Your task to perform on an android device: change the clock display to show seconds Image 0: 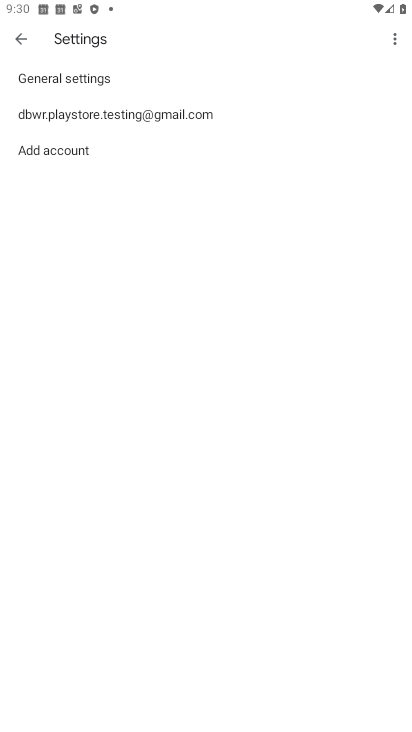
Step 0: press home button
Your task to perform on an android device: change the clock display to show seconds Image 1: 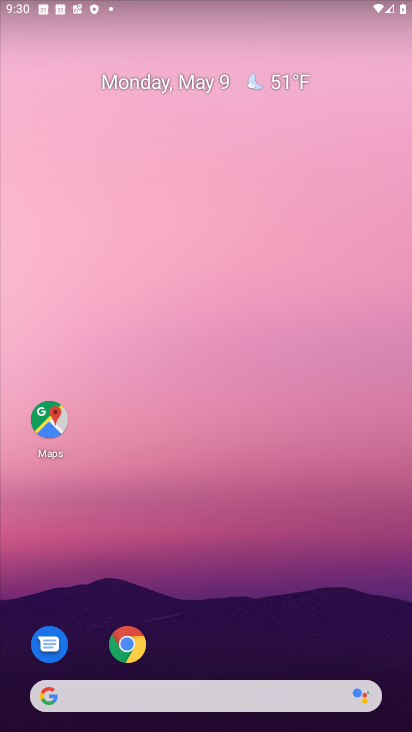
Step 1: drag from (219, 679) to (145, 31)
Your task to perform on an android device: change the clock display to show seconds Image 2: 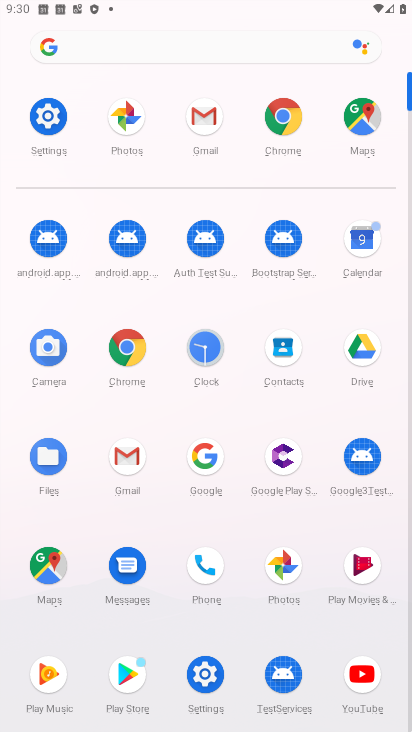
Step 2: click (192, 343)
Your task to perform on an android device: change the clock display to show seconds Image 3: 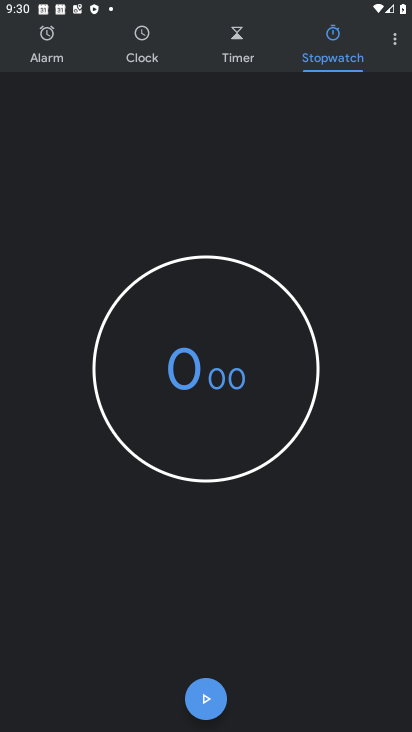
Step 3: click (397, 49)
Your task to perform on an android device: change the clock display to show seconds Image 4: 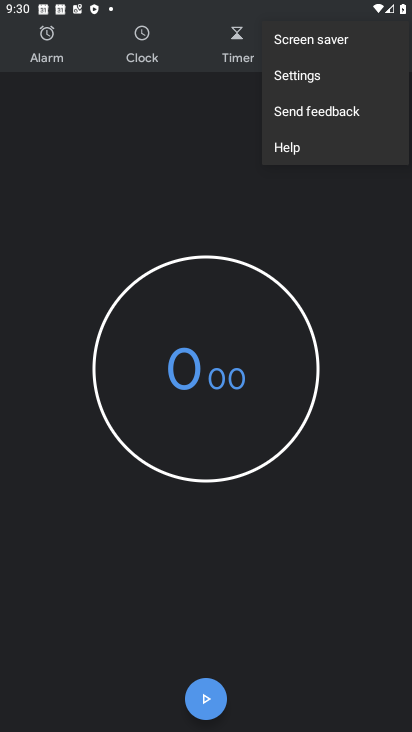
Step 4: click (330, 71)
Your task to perform on an android device: change the clock display to show seconds Image 5: 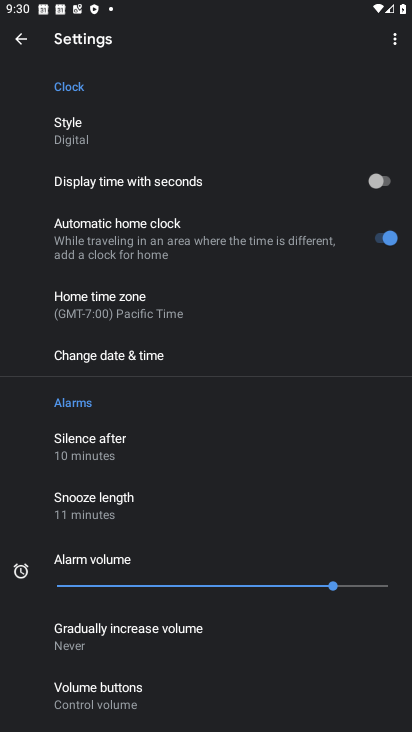
Step 5: click (130, 199)
Your task to perform on an android device: change the clock display to show seconds Image 6: 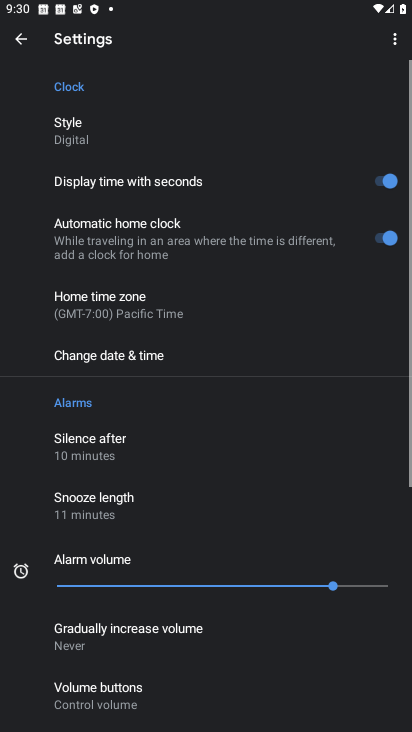
Step 6: task complete